Your task to perform on an android device: Open network settings Image 0: 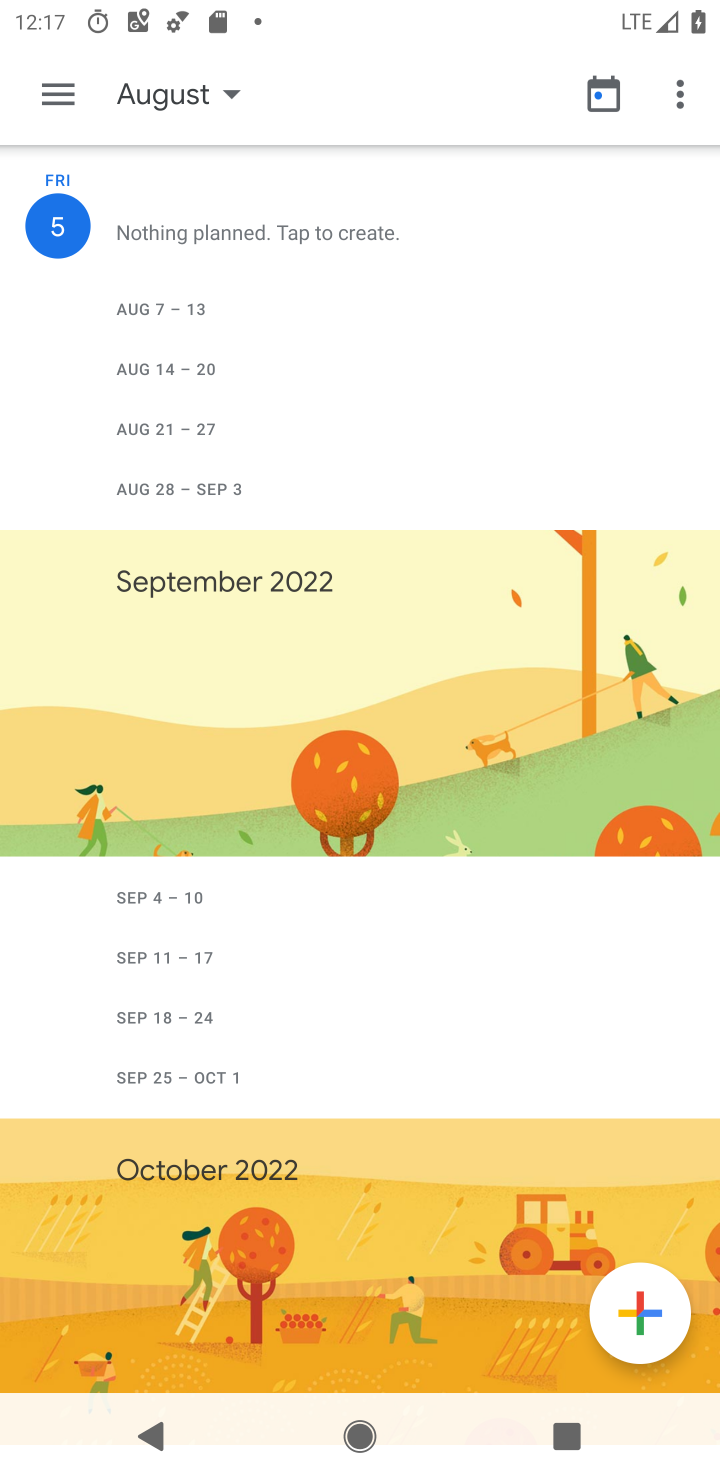
Step 0: press home button
Your task to perform on an android device: Open network settings Image 1: 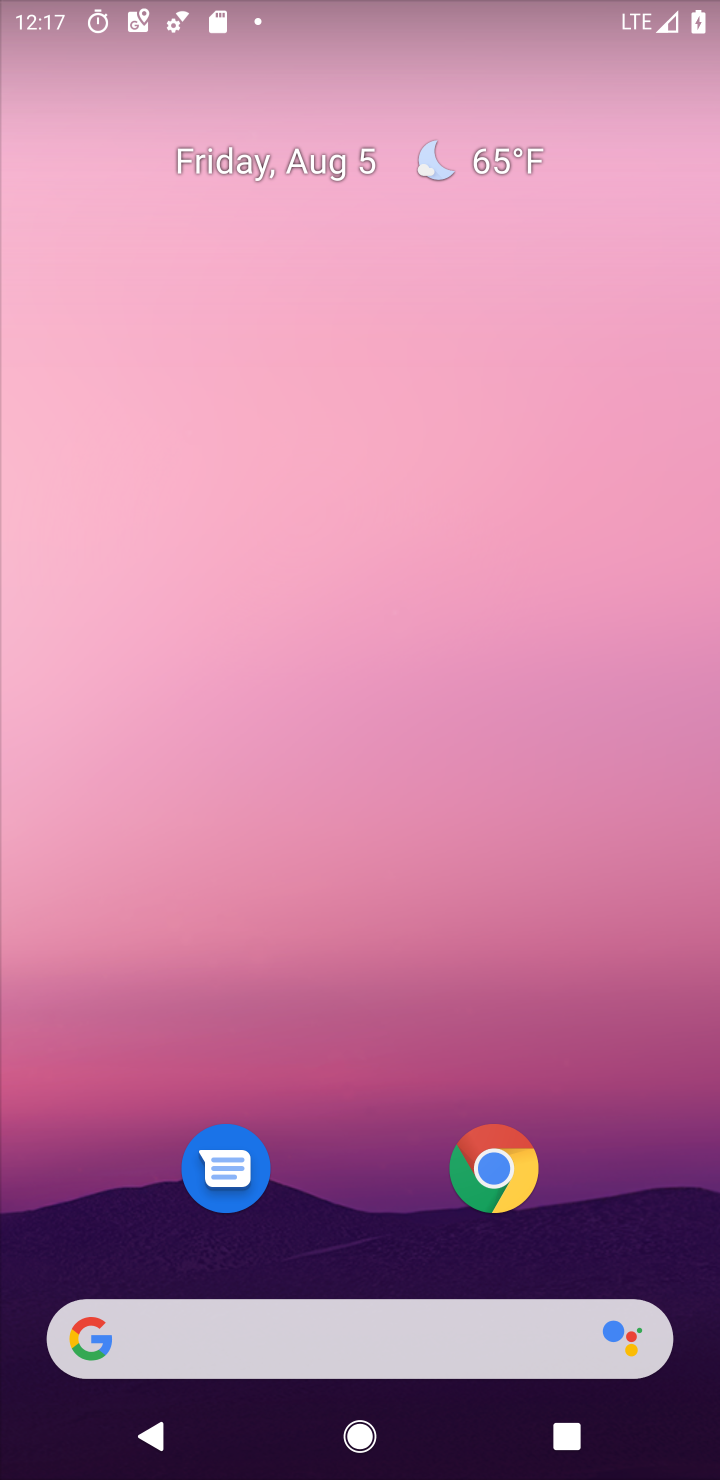
Step 1: drag from (295, 1084) to (221, 321)
Your task to perform on an android device: Open network settings Image 2: 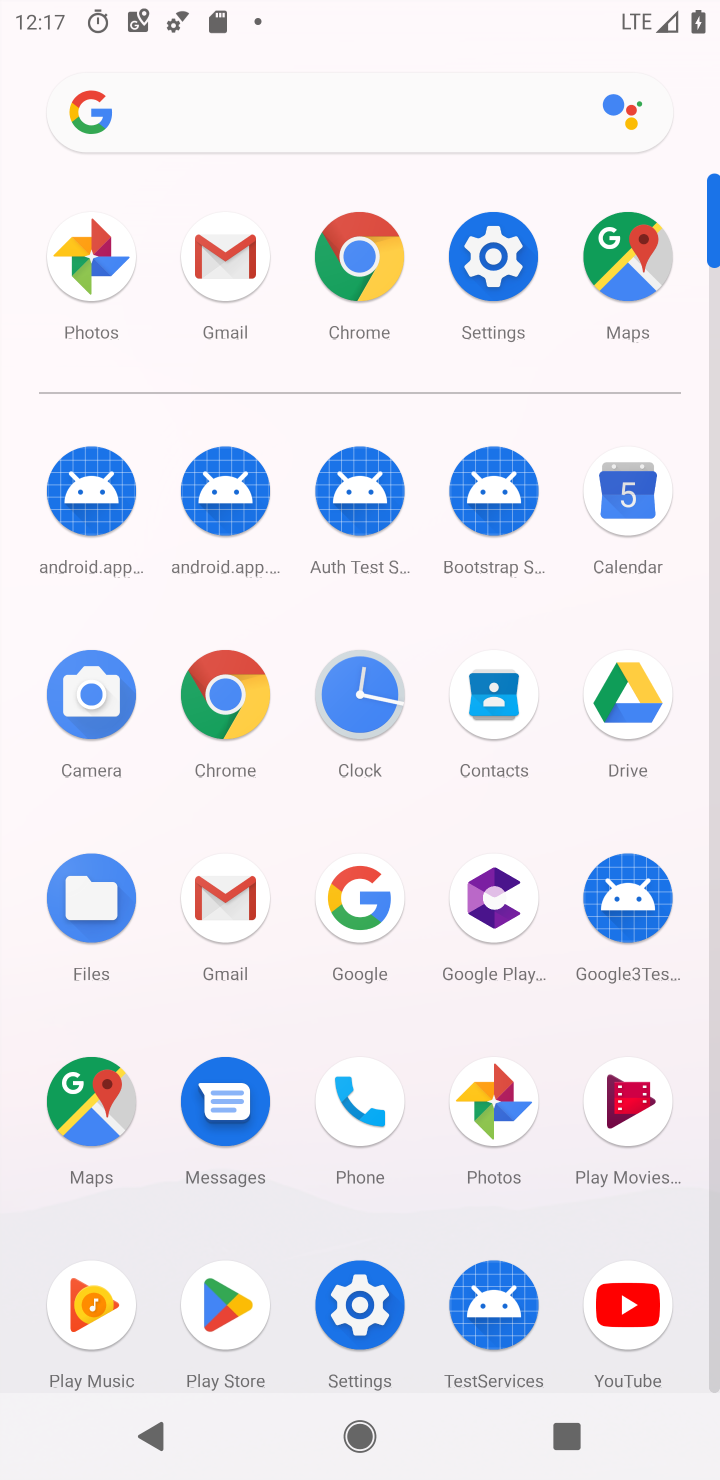
Step 2: click (495, 288)
Your task to perform on an android device: Open network settings Image 3: 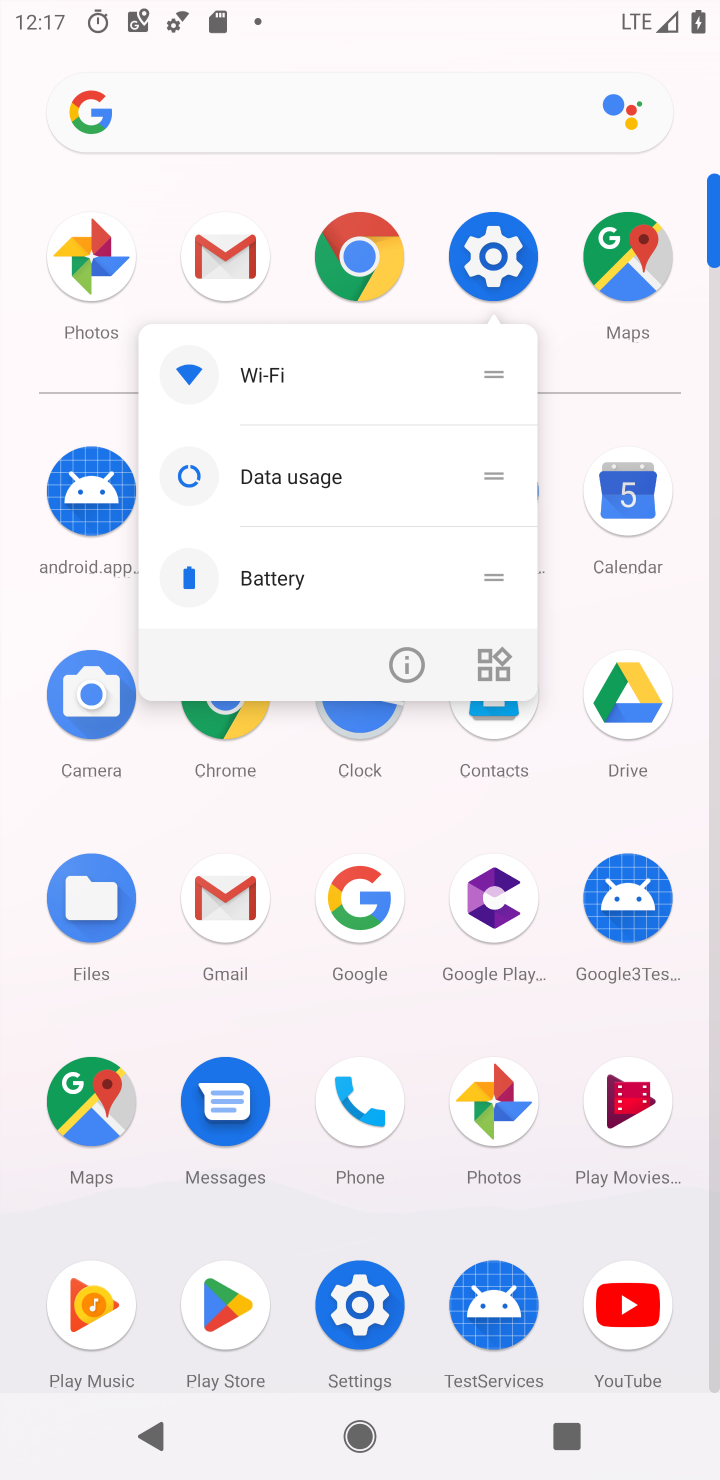
Step 3: click (501, 257)
Your task to perform on an android device: Open network settings Image 4: 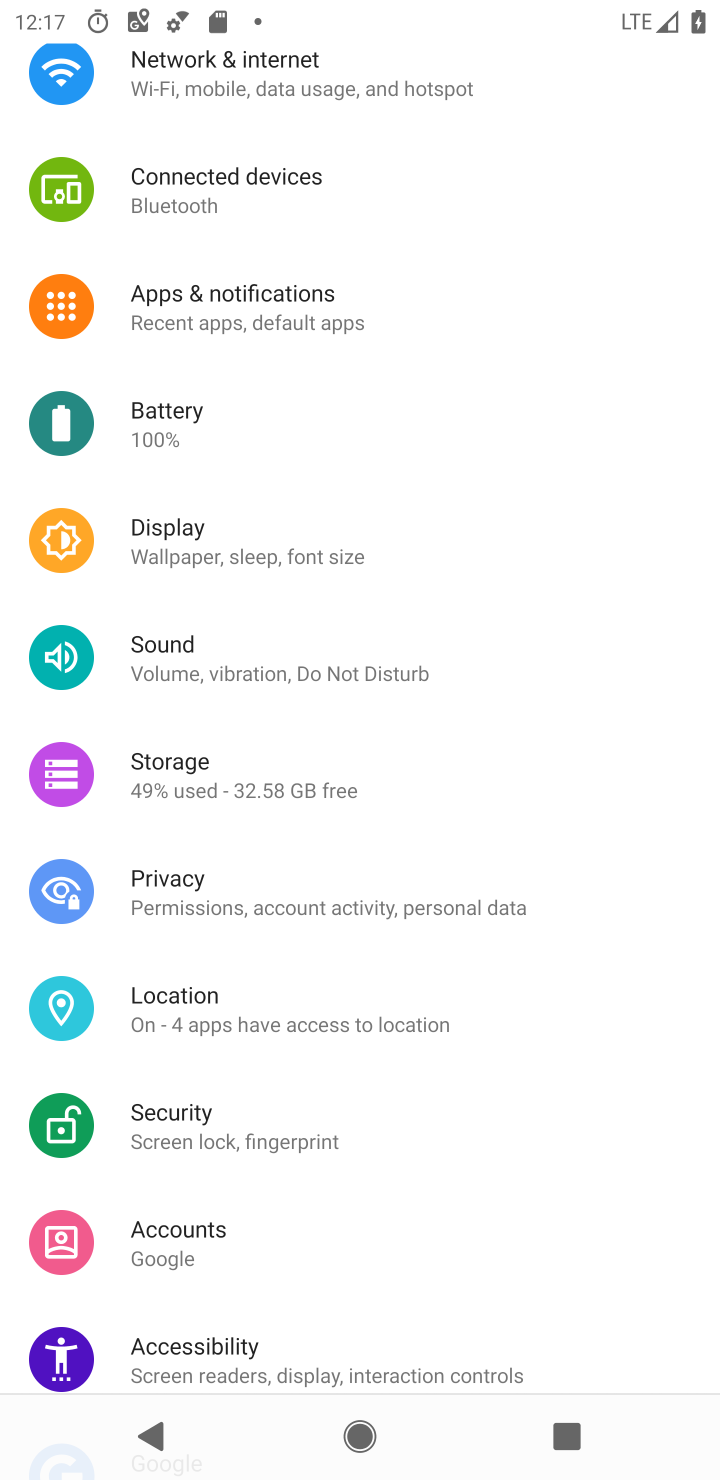
Step 4: drag from (289, 216) to (285, 1093)
Your task to perform on an android device: Open network settings Image 5: 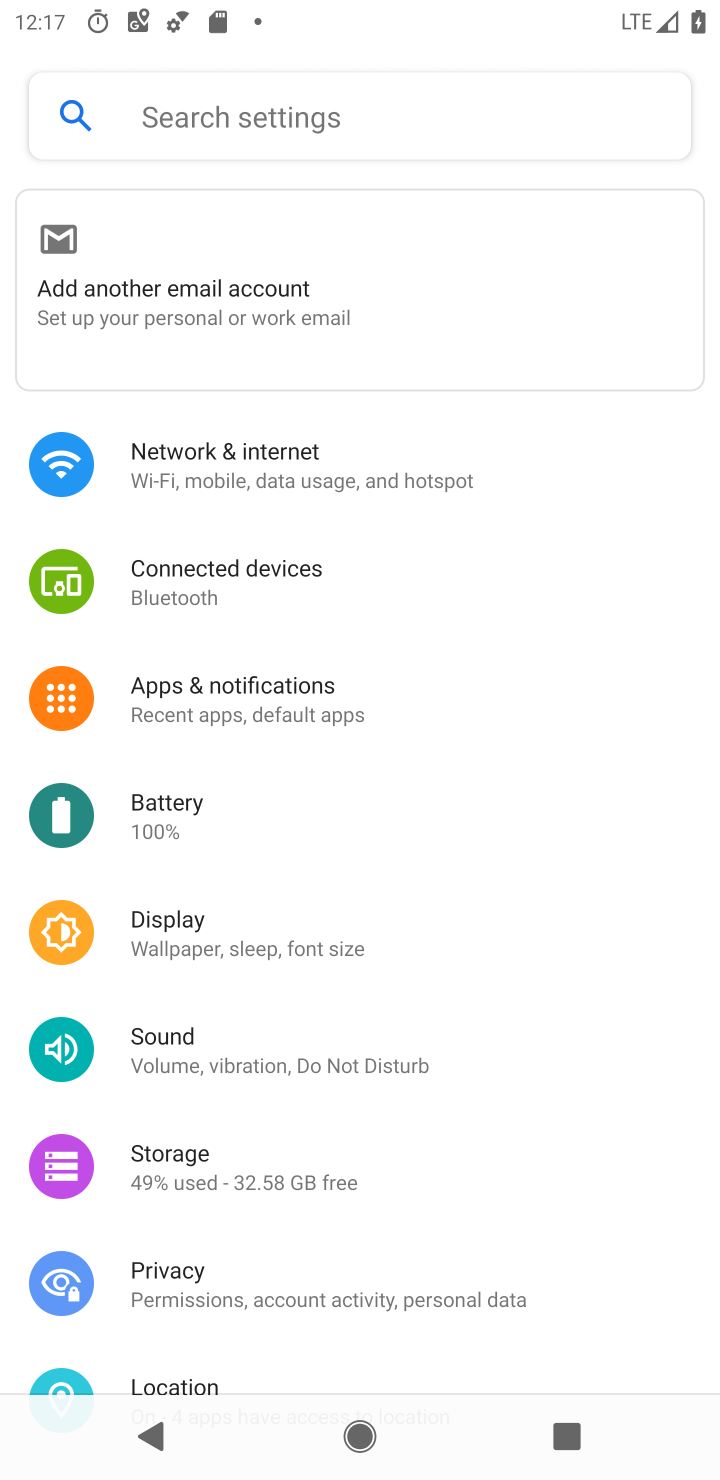
Step 5: click (205, 475)
Your task to perform on an android device: Open network settings Image 6: 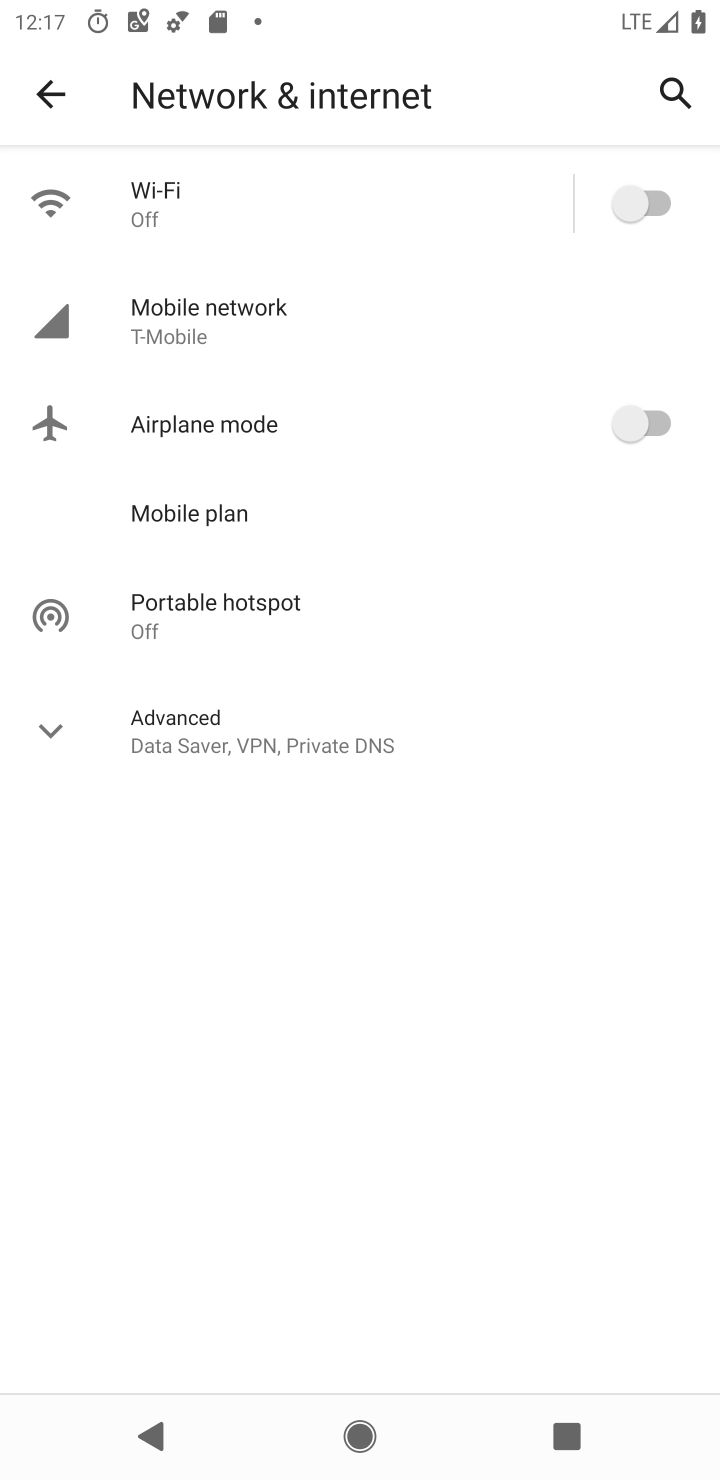
Step 6: task complete